Your task to perform on an android device: check google app version Image 0: 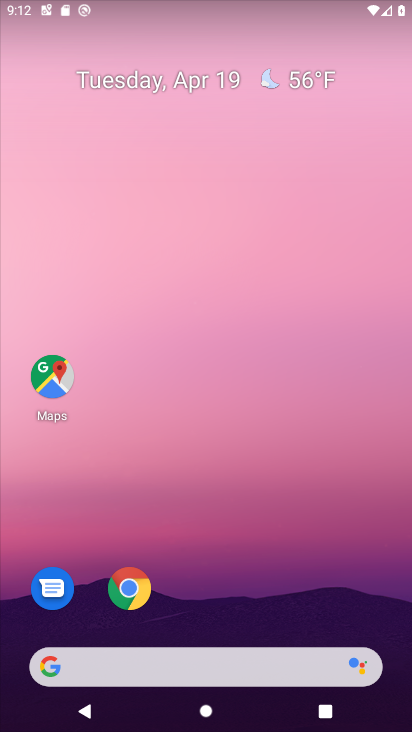
Step 0: press home button
Your task to perform on an android device: check google app version Image 1: 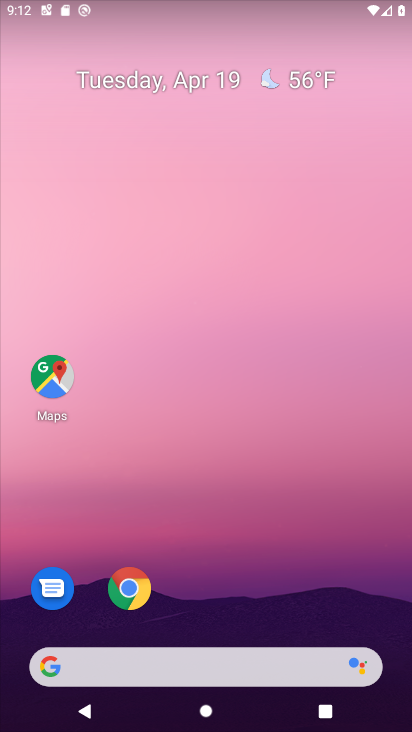
Step 1: drag from (213, 617) to (225, 47)
Your task to perform on an android device: check google app version Image 2: 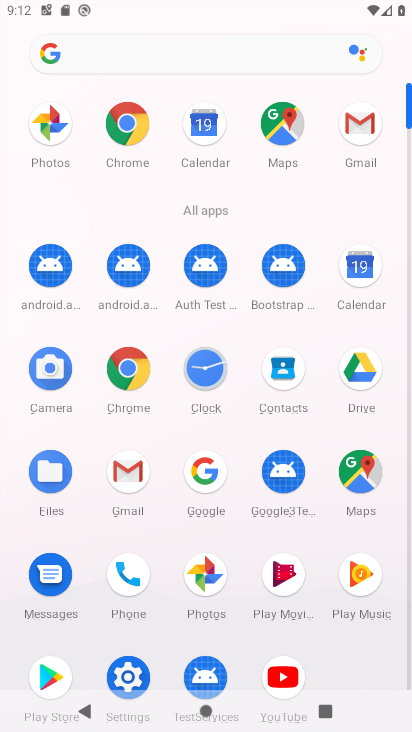
Step 2: click (205, 471)
Your task to perform on an android device: check google app version Image 3: 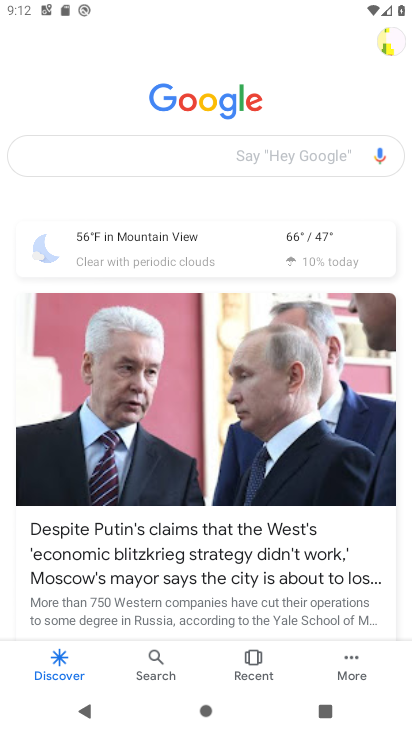
Step 3: click (348, 653)
Your task to perform on an android device: check google app version Image 4: 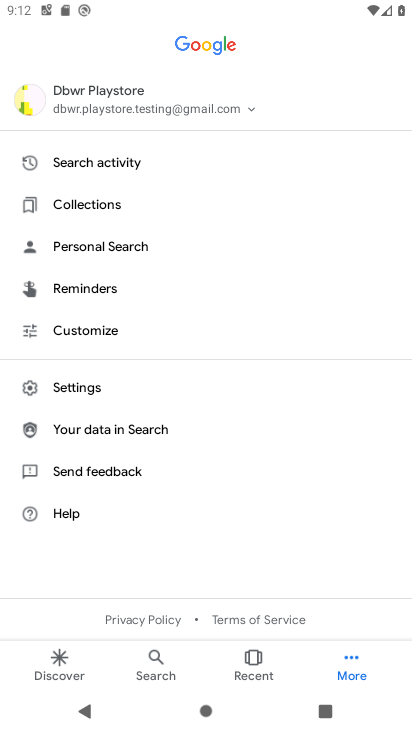
Step 4: click (90, 385)
Your task to perform on an android device: check google app version Image 5: 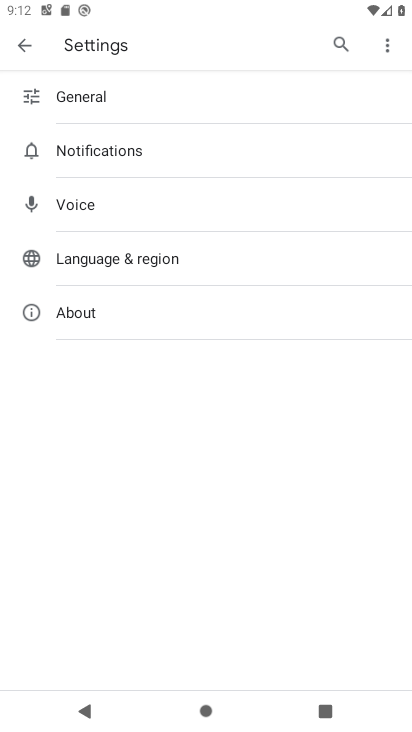
Step 5: click (98, 308)
Your task to perform on an android device: check google app version Image 6: 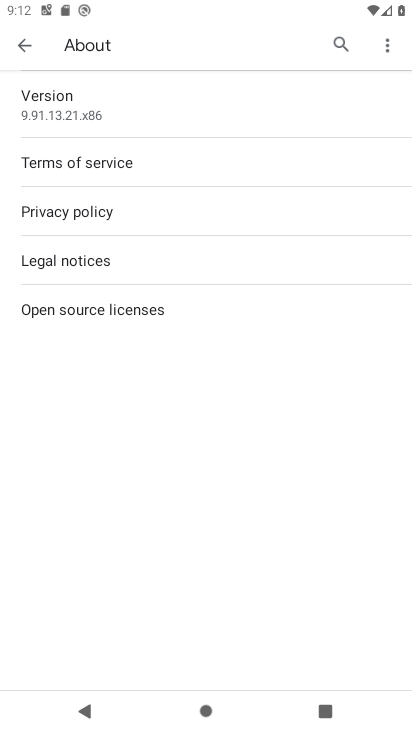
Step 6: task complete